Your task to perform on an android device: Search for Mexican restaurants on Maps Image 0: 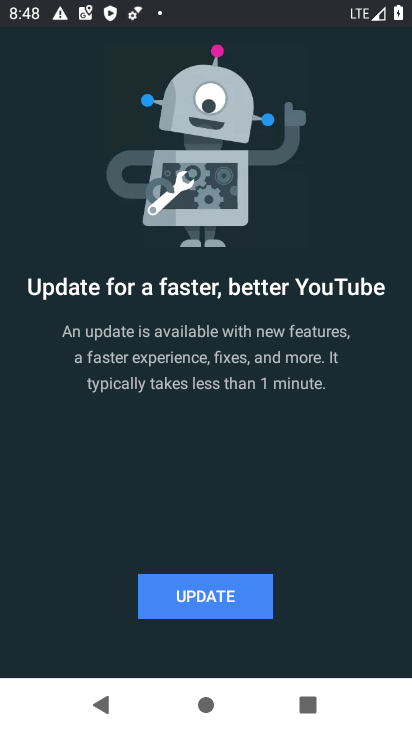
Step 0: press home button
Your task to perform on an android device: Search for Mexican restaurants on Maps Image 1: 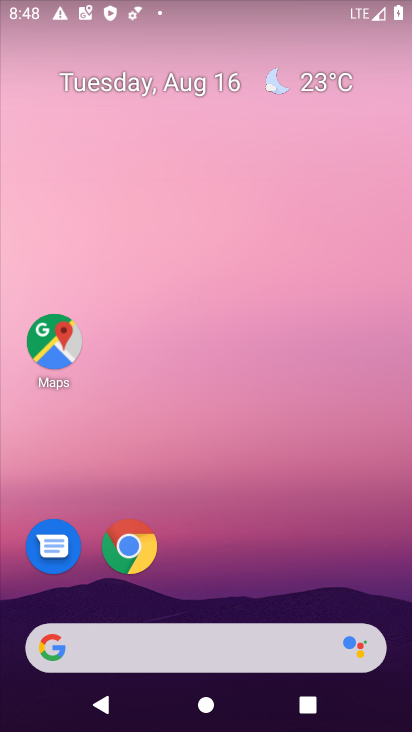
Step 1: click (48, 334)
Your task to perform on an android device: Search for Mexican restaurants on Maps Image 2: 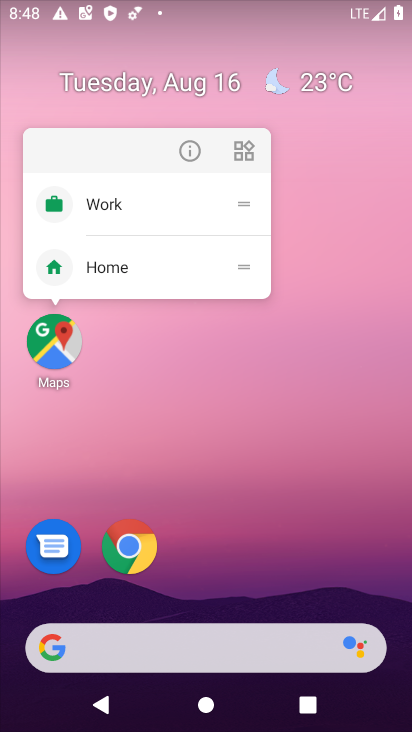
Step 2: click (57, 345)
Your task to perform on an android device: Search for Mexican restaurants on Maps Image 3: 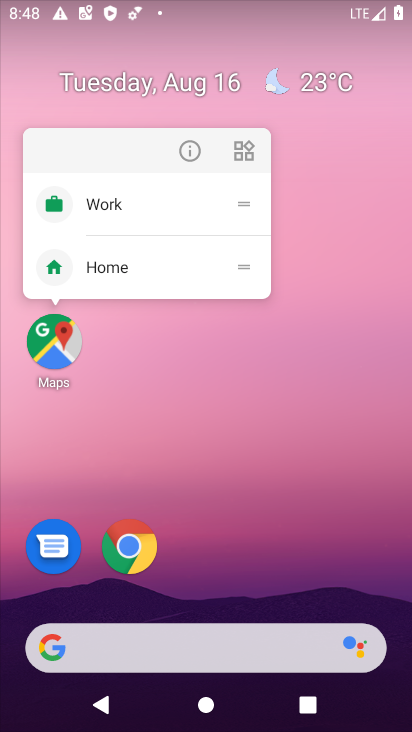
Step 3: click (56, 345)
Your task to perform on an android device: Search for Mexican restaurants on Maps Image 4: 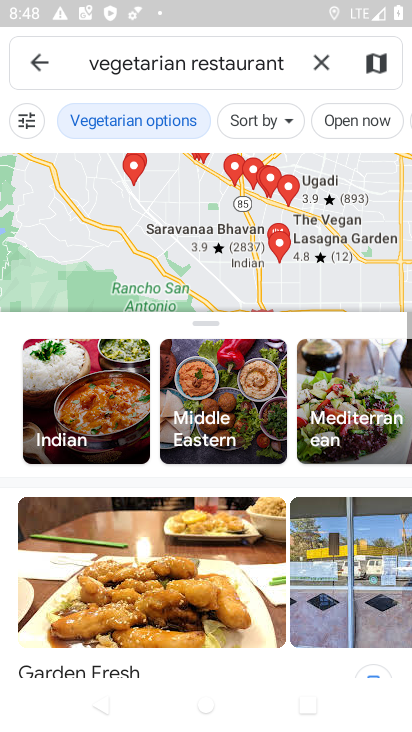
Step 4: click (320, 58)
Your task to perform on an android device: Search for Mexican restaurants on Maps Image 5: 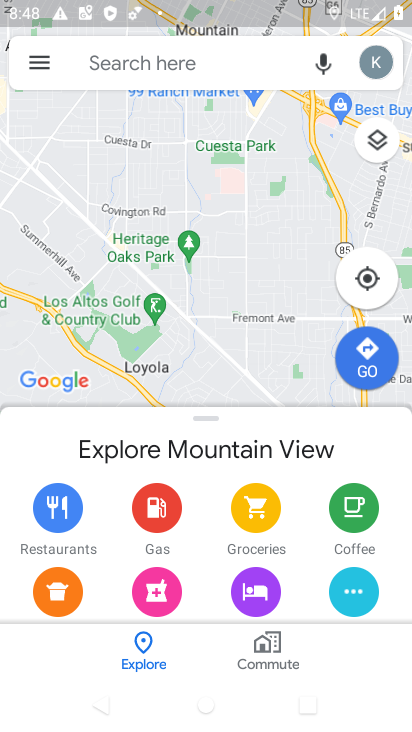
Step 5: click (210, 65)
Your task to perform on an android device: Search for Mexican restaurants on Maps Image 6: 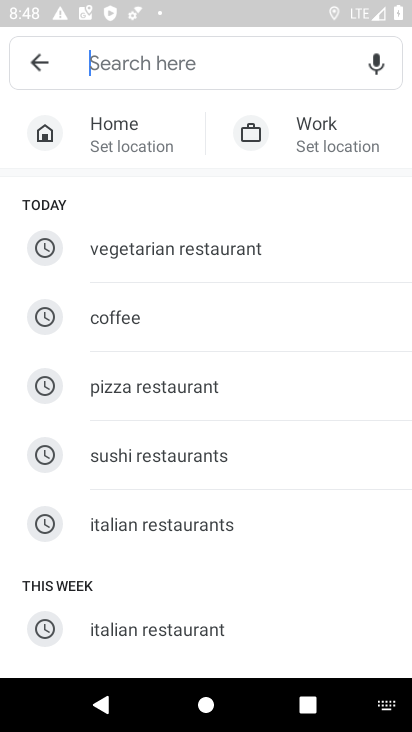
Step 6: drag from (222, 470) to (249, 195)
Your task to perform on an android device: Search for Mexican restaurants on Maps Image 7: 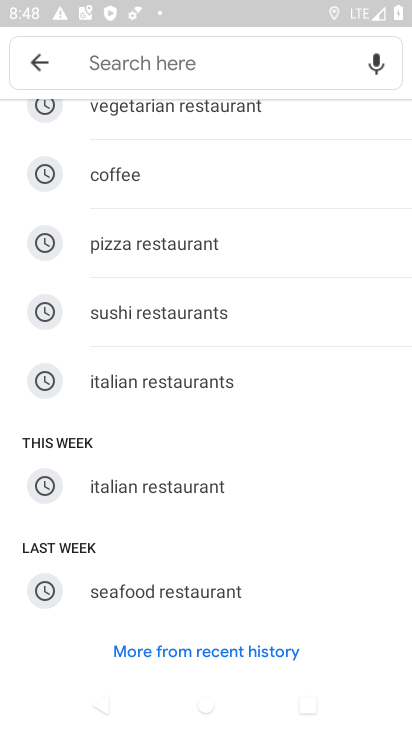
Step 7: drag from (249, 199) to (208, 487)
Your task to perform on an android device: Search for Mexican restaurants on Maps Image 8: 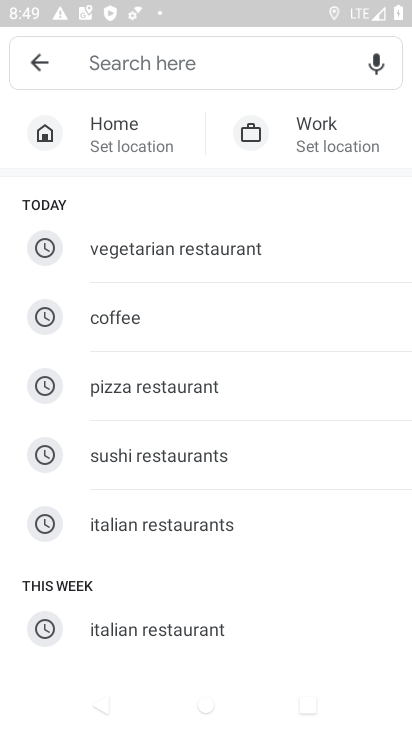
Step 8: click (243, 54)
Your task to perform on an android device: Search for Mexican restaurants on Maps Image 9: 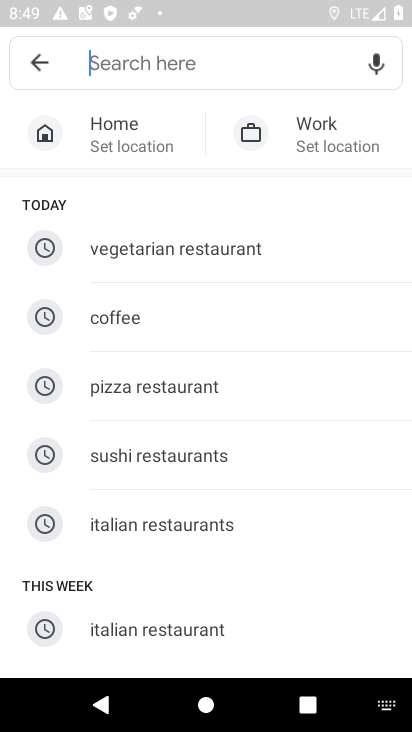
Step 9: type "mexican restaurants"
Your task to perform on an android device: Search for Mexican restaurants on Maps Image 10: 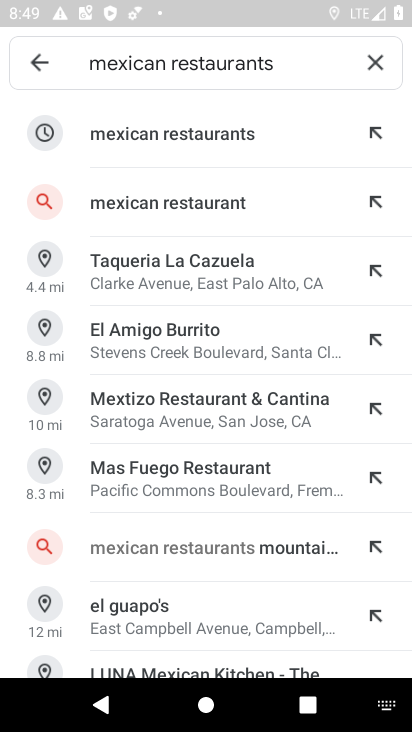
Step 10: click (223, 137)
Your task to perform on an android device: Search for Mexican restaurants on Maps Image 11: 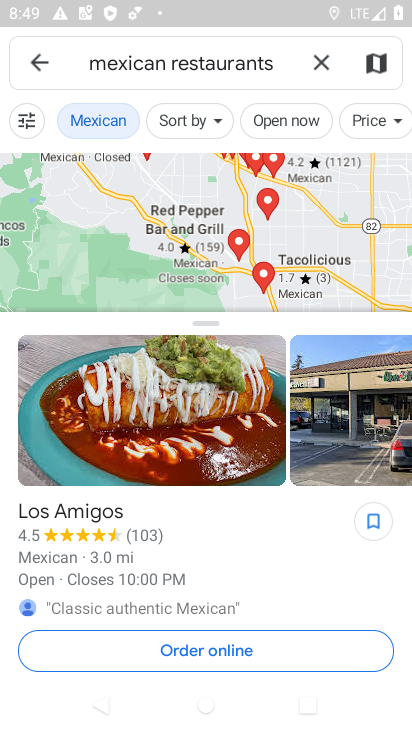
Step 11: task complete